Your task to perform on an android device: Open Google Image 0: 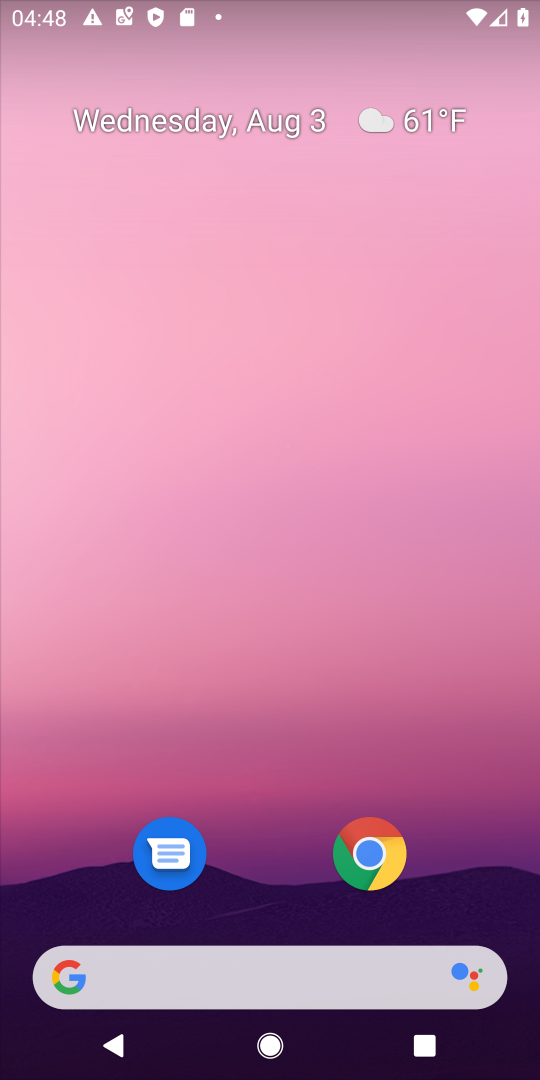
Step 0: drag from (245, 915) to (277, 401)
Your task to perform on an android device: Open Google Image 1: 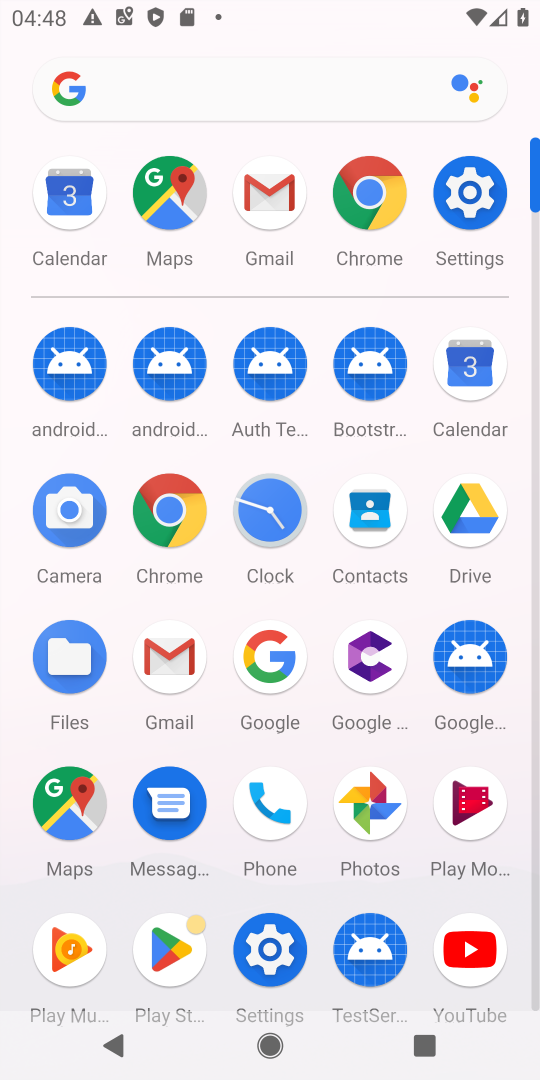
Step 1: click (260, 659)
Your task to perform on an android device: Open Google Image 2: 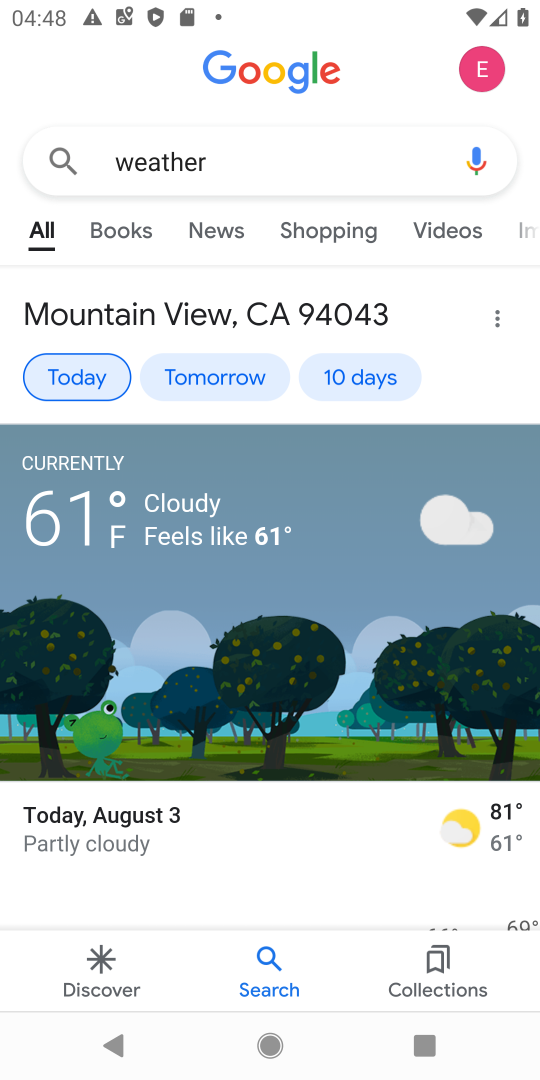
Step 2: task complete